Your task to perform on an android device: delete a single message in the gmail app Image 0: 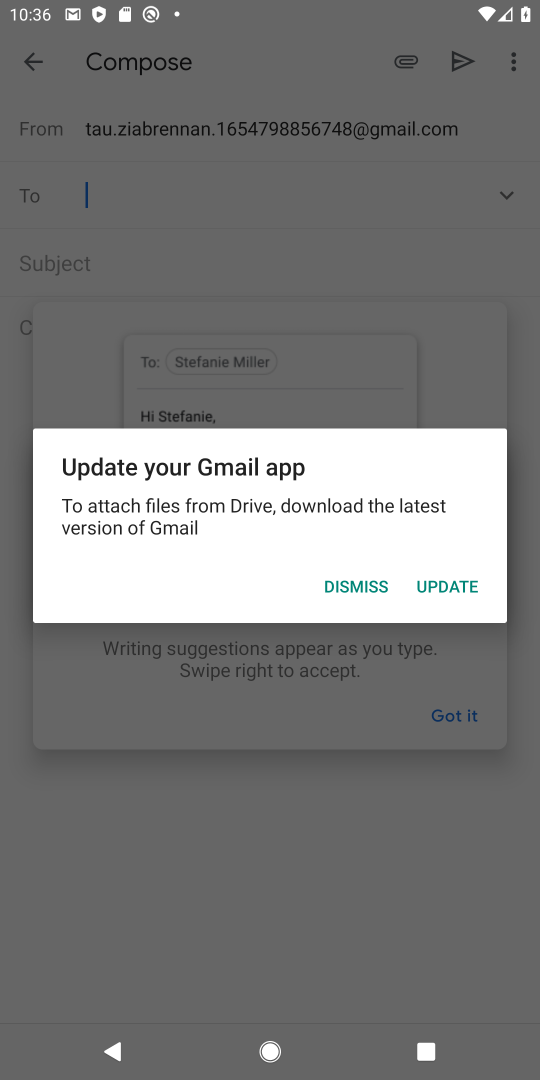
Step 0: press home button
Your task to perform on an android device: delete a single message in the gmail app Image 1: 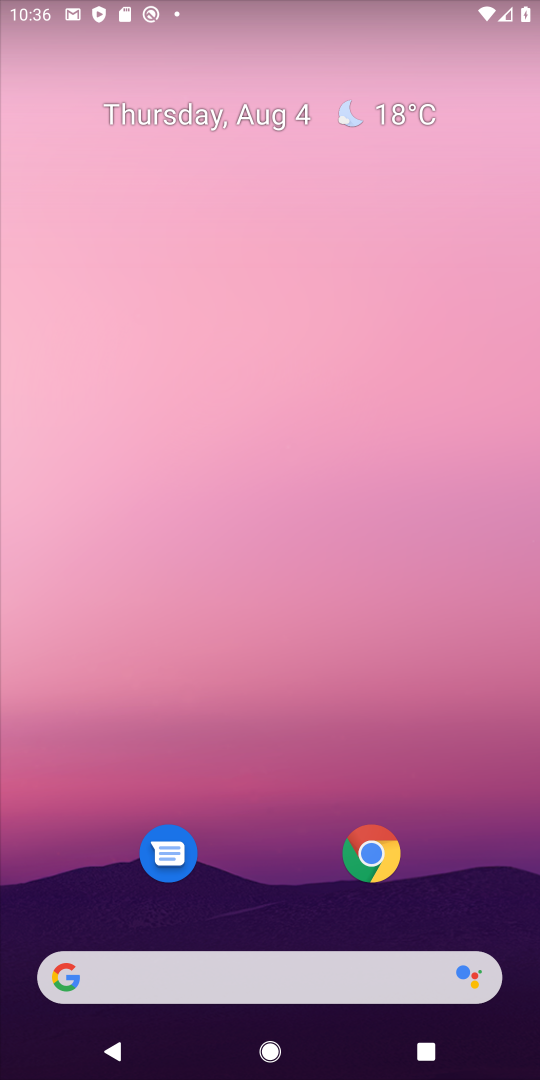
Step 1: drag from (296, 919) to (213, 140)
Your task to perform on an android device: delete a single message in the gmail app Image 2: 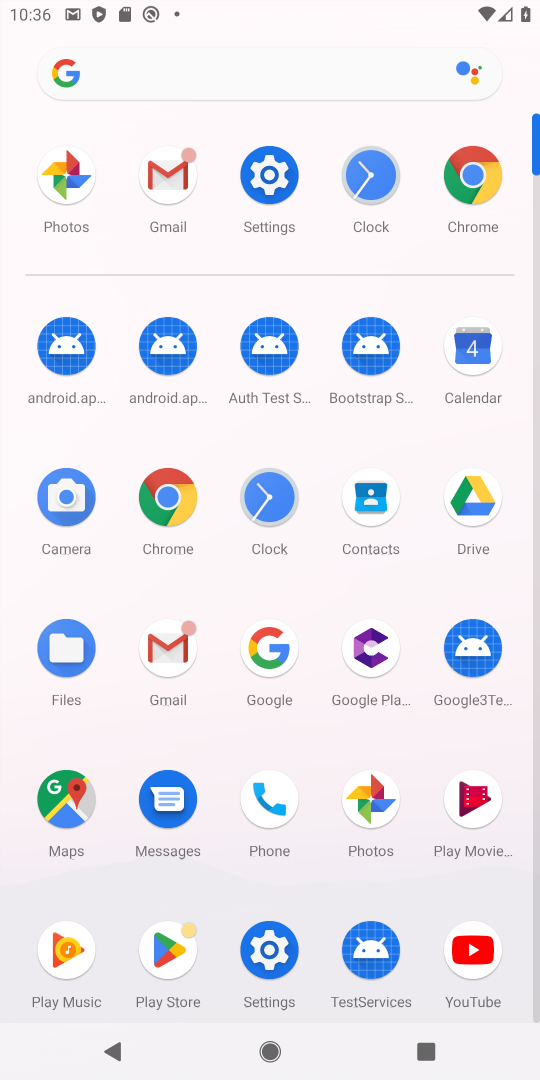
Step 2: click (169, 666)
Your task to perform on an android device: delete a single message in the gmail app Image 3: 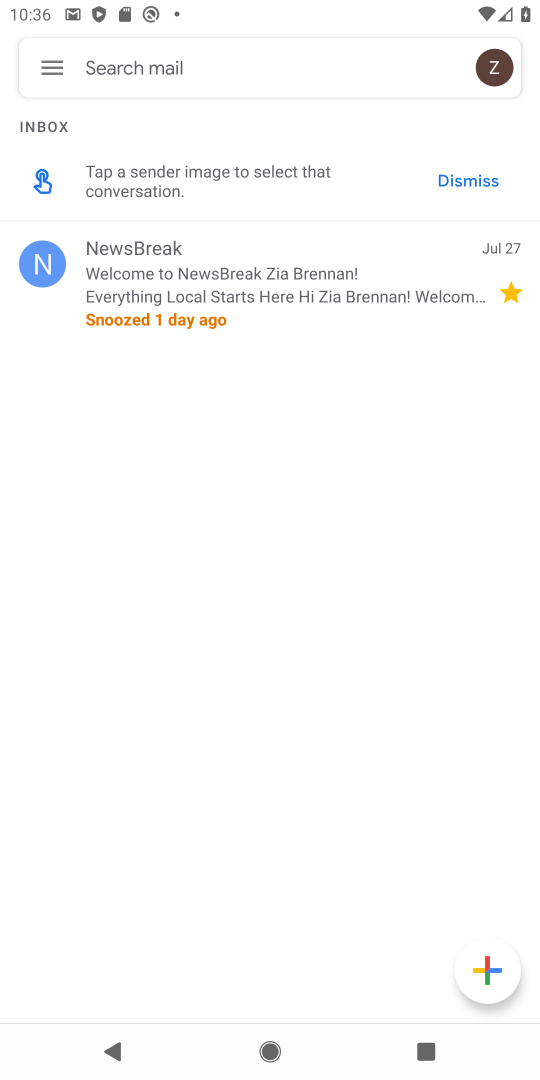
Step 3: click (182, 278)
Your task to perform on an android device: delete a single message in the gmail app Image 4: 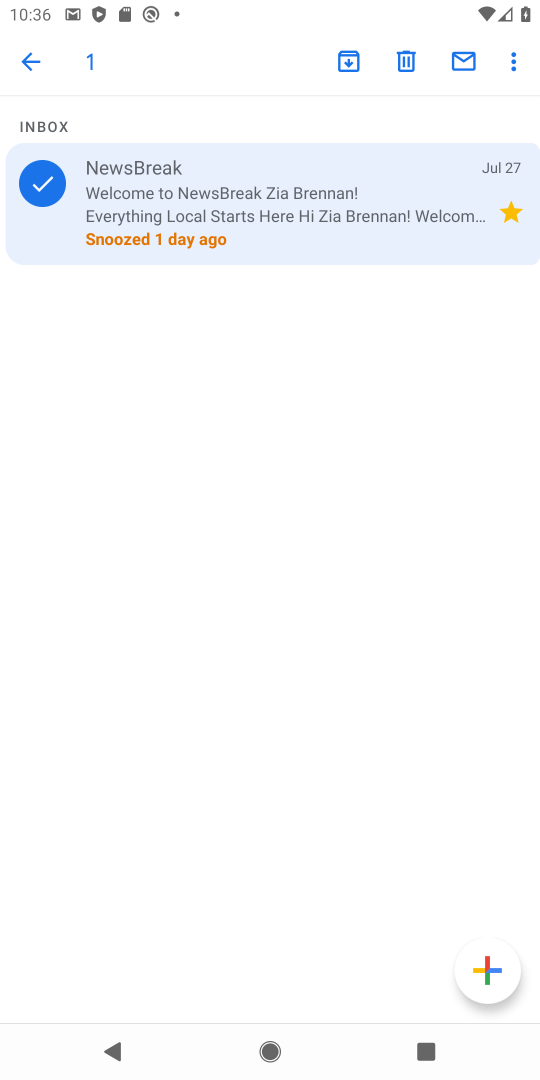
Step 4: click (386, 57)
Your task to perform on an android device: delete a single message in the gmail app Image 5: 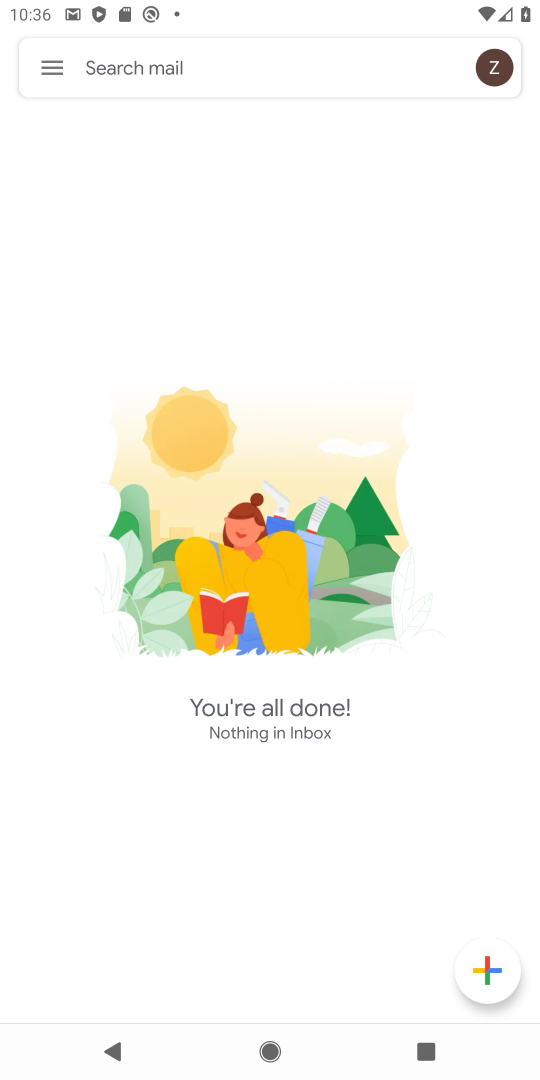
Step 5: task complete